Your task to perform on an android device: Go to network settings Image 0: 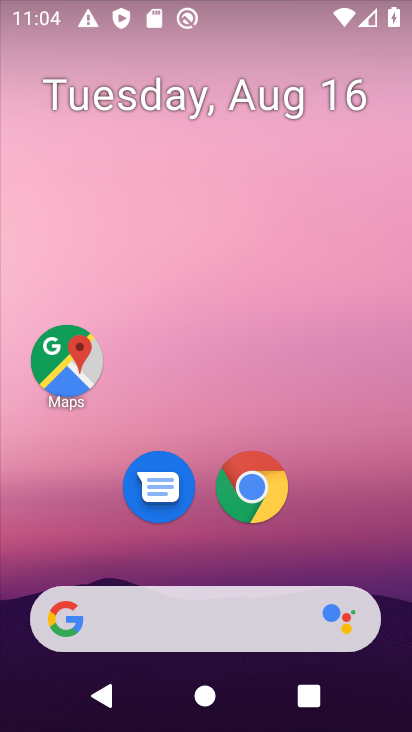
Step 0: drag from (353, 528) to (295, 1)
Your task to perform on an android device: Go to network settings Image 1: 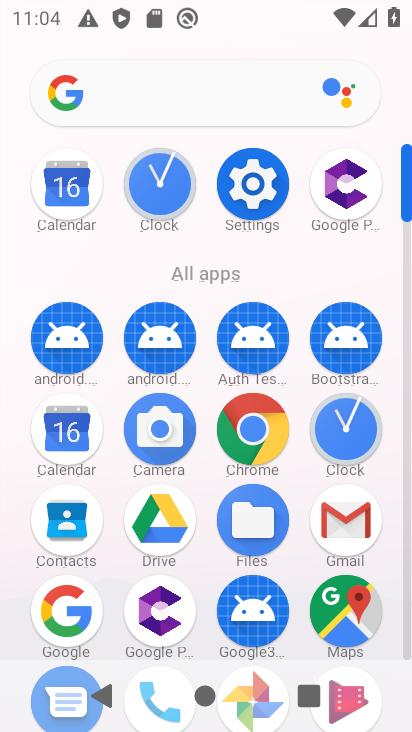
Step 1: click (239, 206)
Your task to perform on an android device: Go to network settings Image 2: 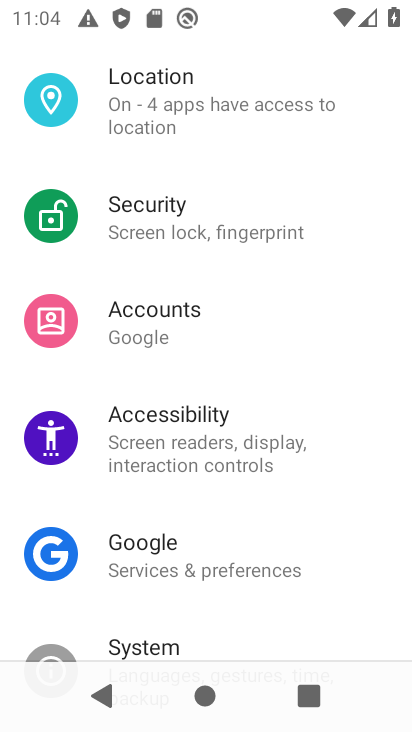
Step 2: drag from (204, 270) to (234, 648)
Your task to perform on an android device: Go to network settings Image 3: 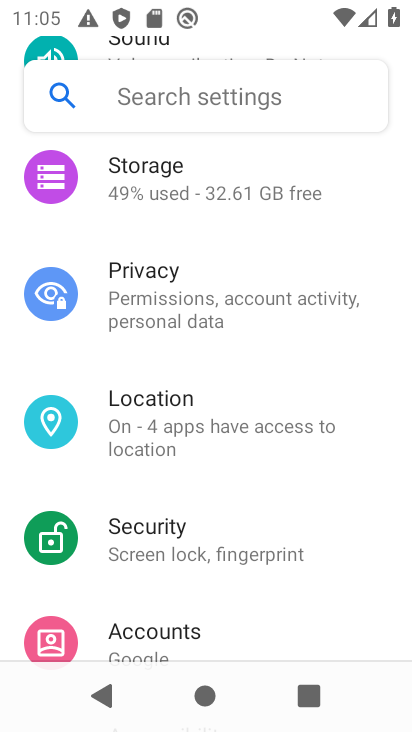
Step 3: drag from (219, 216) to (208, 649)
Your task to perform on an android device: Go to network settings Image 4: 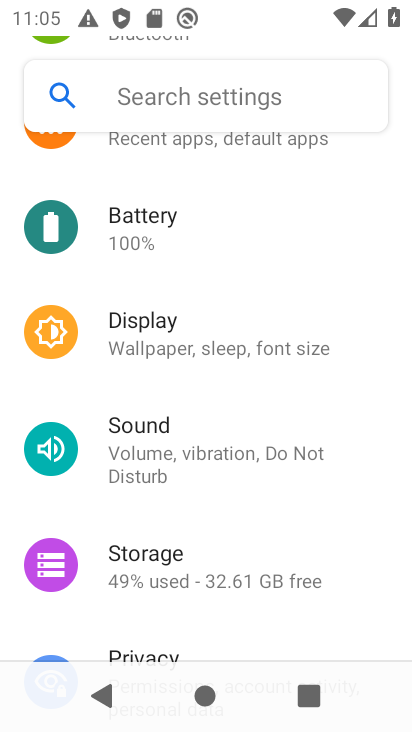
Step 4: drag from (166, 308) to (191, 606)
Your task to perform on an android device: Go to network settings Image 5: 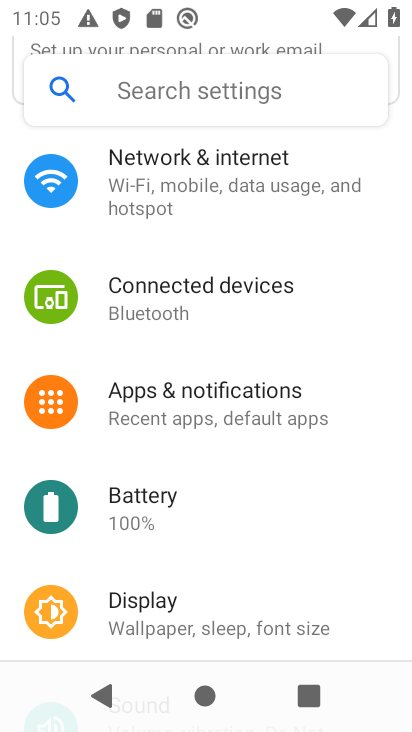
Step 5: click (211, 180)
Your task to perform on an android device: Go to network settings Image 6: 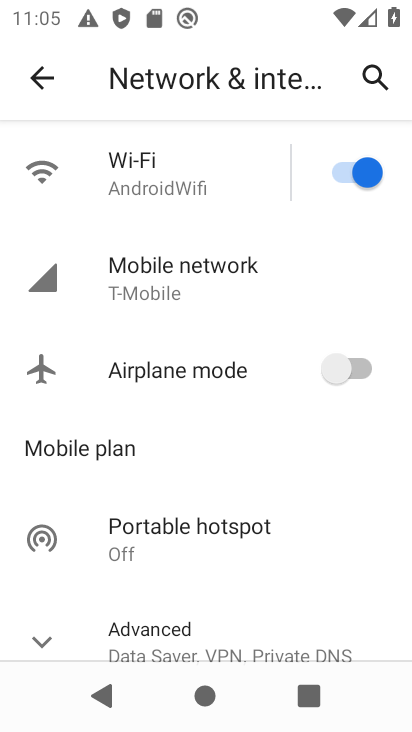
Step 6: task complete